Your task to perform on an android device: turn on priority inbox in the gmail app Image 0: 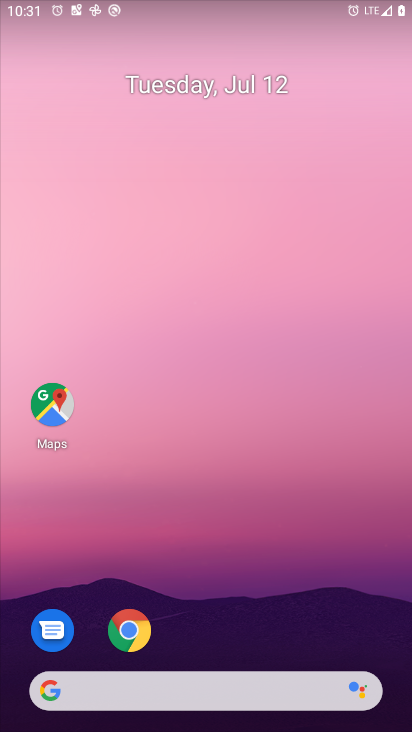
Step 0: press home button
Your task to perform on an android device: turn on priority inbox in the gmail app Image 1: 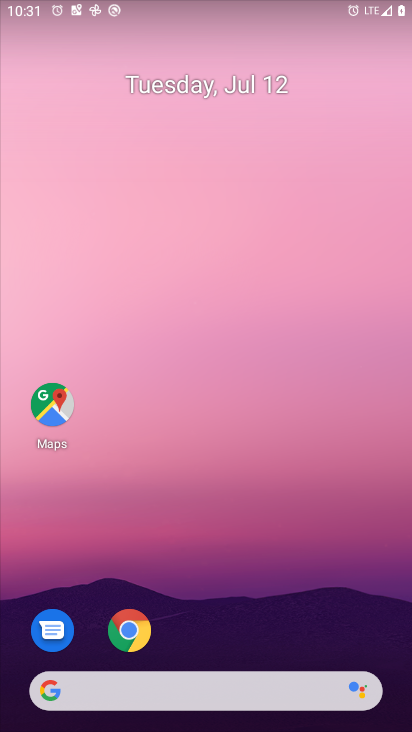
Step 1: drag from (288, 583) to (301, 20)
Your task to perform on an android device: turn on priority inbox in the gmail app Image 2: 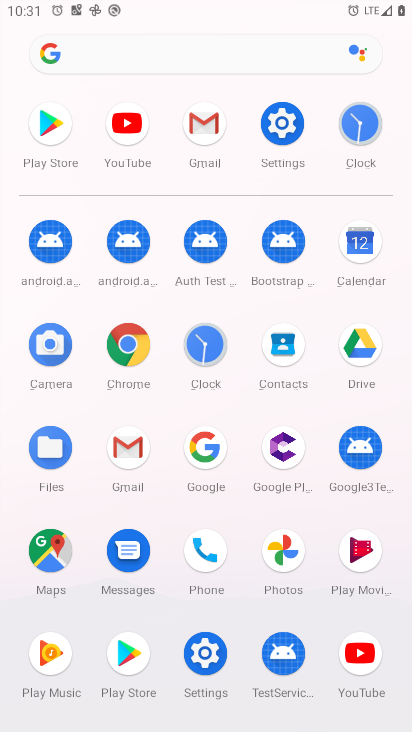
Step 2: click (212, 117)
Your task to perform on an android device: turn on priority inbox in the gmail app Image 3: 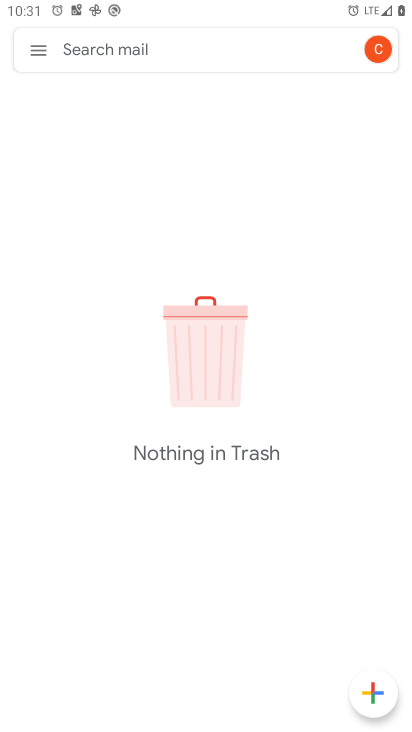
Step 3: press home button
Your task to perform on an android device: turn on priority inbox in the gmail app Image 4: 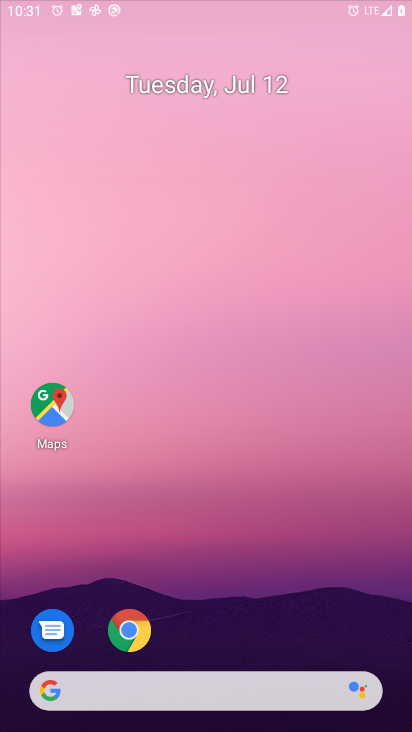
Step 4: drag from (316, 624) to (318, 65)
Your task to perform on an android device: turn on priority inbox in the gmail app Image 5: 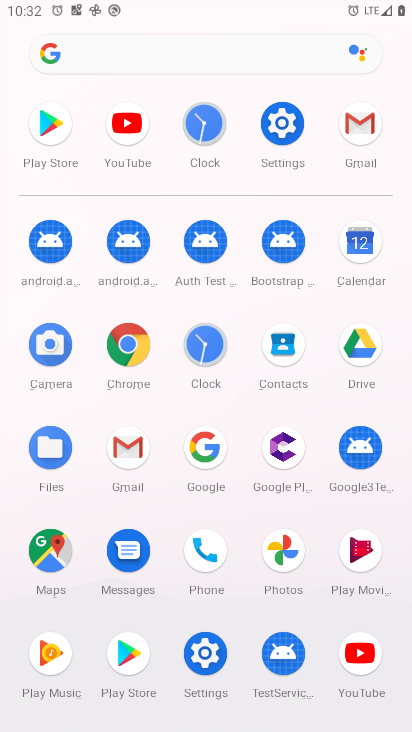
Step 5: click (374, 126)
Your task to perform on an android device: turn on priority inbox in the gmail app Image 6: 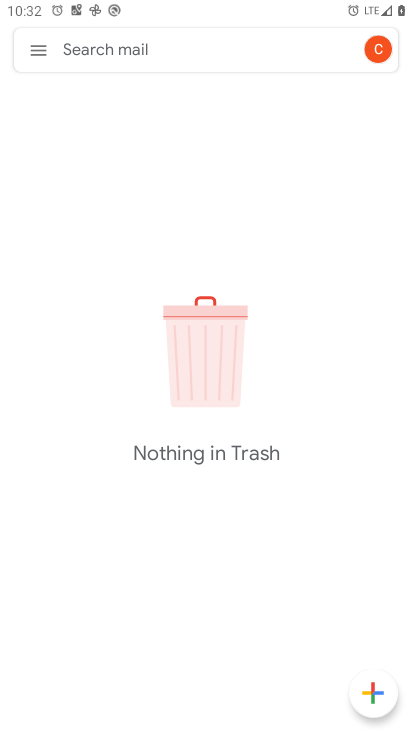
Step 6: click (43, 51)
Your task to perform on an android device: turn on priority inbox in the gmail app Image 7: 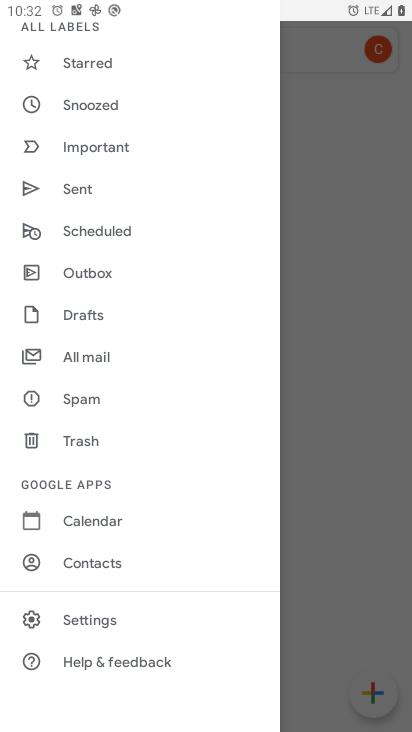
Step 7: click (74, 617)
Your task to perform on an android device: turn on priority inbox in the gmail app Image 8: 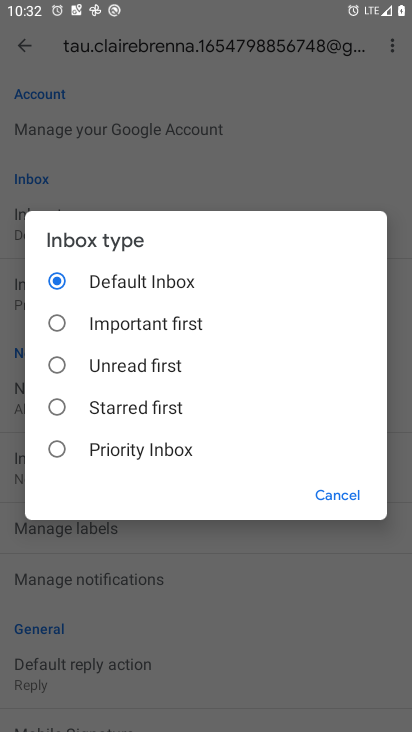
Step 8: click (58, 449)
Your task to perform on an android device: turn on priority inbox in the gmail app Image 9: 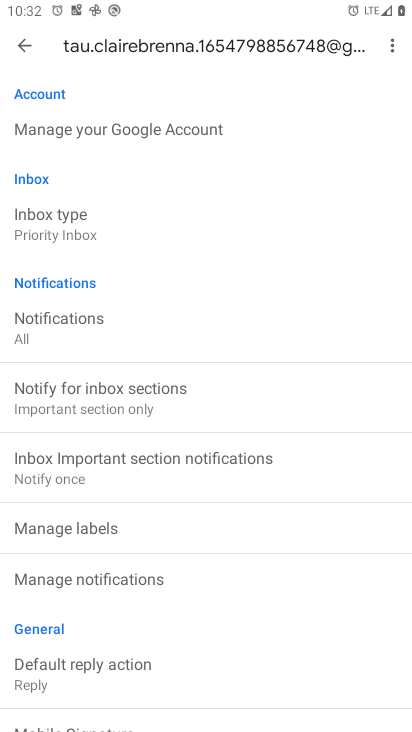
Step 9: task complete